Your task to perform on an android device: Open Reddit.com Image 0: 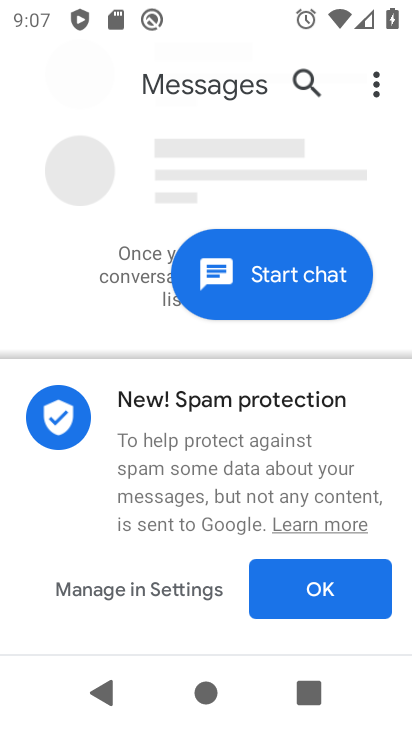
Step 0: drag from (199, 514) to (354, 107)
Your task to perform on an android device: Open Reddit.com Image 1: 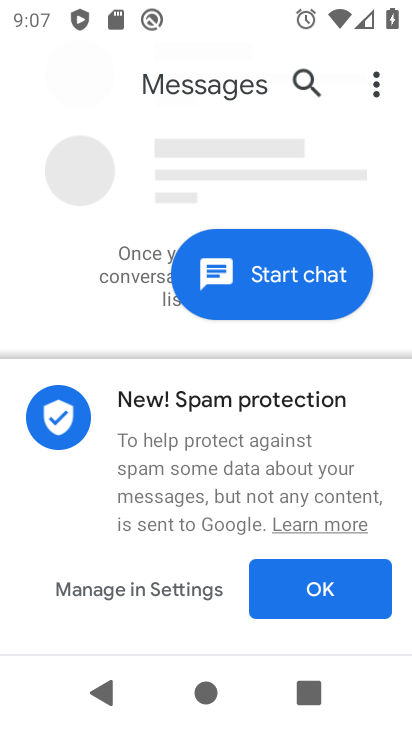
Step 1: press home button
Your task to perform on an android device: Open Reddit.com Image 2: 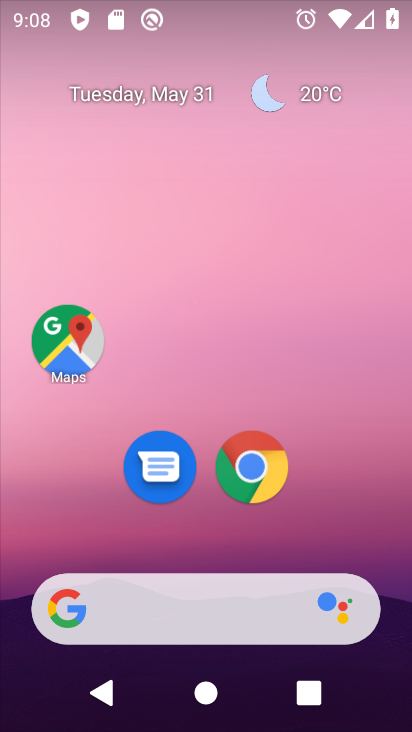
Step 2: drag from (202, 562) to (222, 89)
Your task to perform on an android device: Open Reddit.com Image 3: 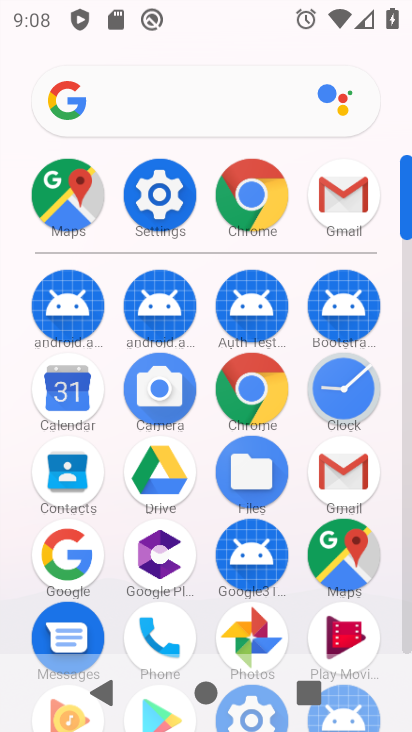
Step 3: click (240, 124)
Your task to perform on an android device: Open Reddit.com Image 4: 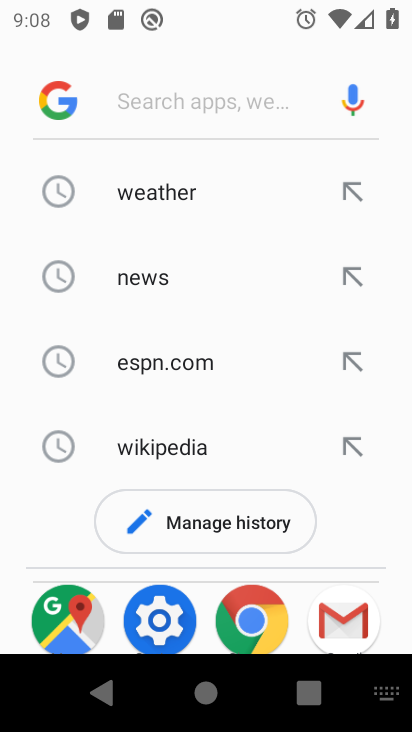
Step 4: type "Reddit.com"
Your task to perform on an android device: Open Reddit.com Image 5: 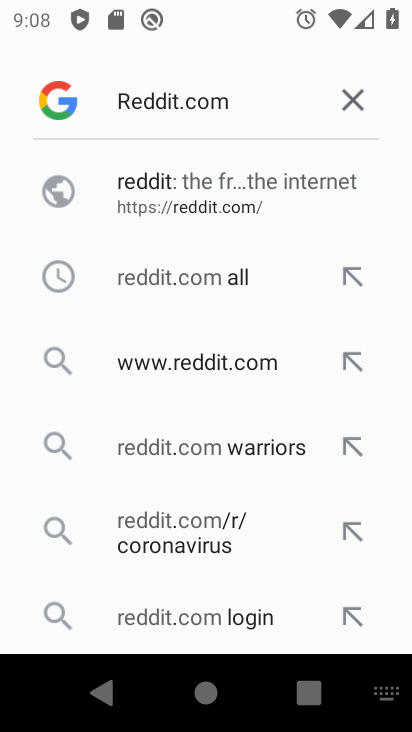
Step 5: click (205, 212)
Your task to perform on an android device: Open Reddit.com Image 6: 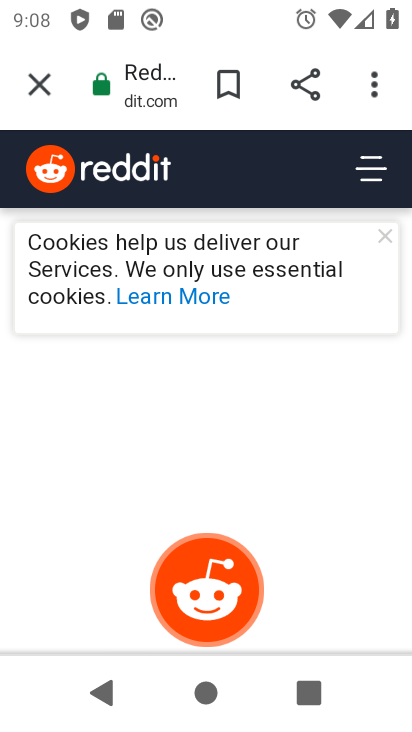
Step 6: task complete